Your task to perform on an android device: What's the weather today? Image 0: 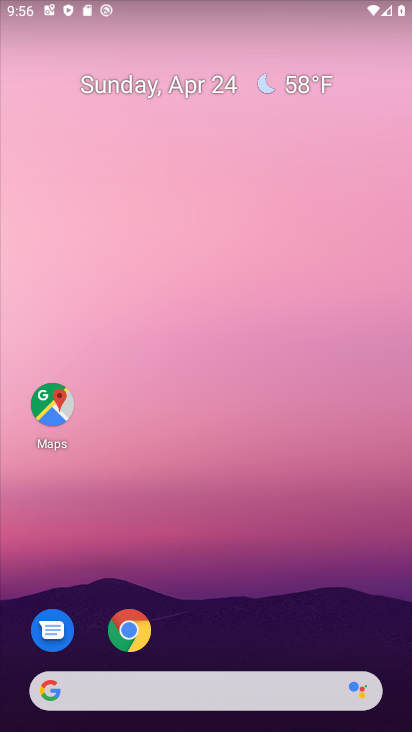
Step 0: drag from (195, 658) to (176, 18)
Your task to perform on an android device: What's the weather today? Image 1: 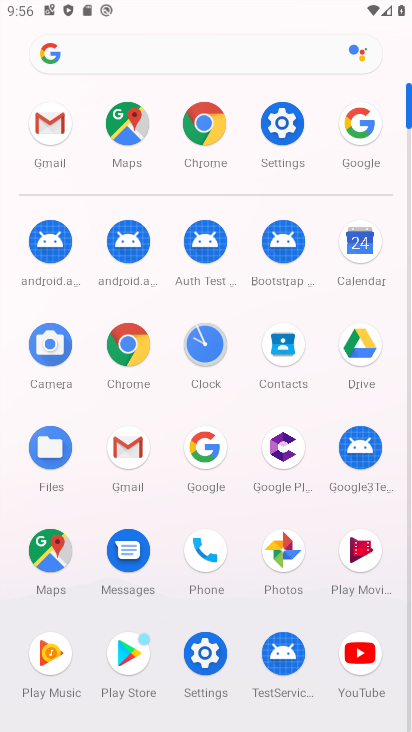
Step 1: click (208, 469)
Your task to perform on an android device: What's the weather today? Image 2: 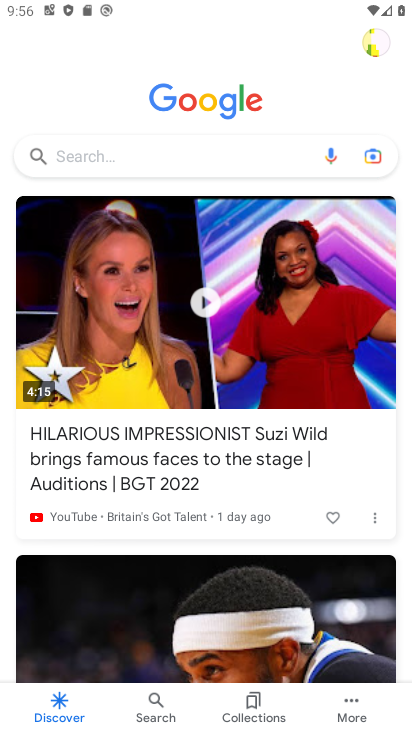
Step 2: click (241, 160)
Your task to perform on an android device: What's the weather today? Image 3: 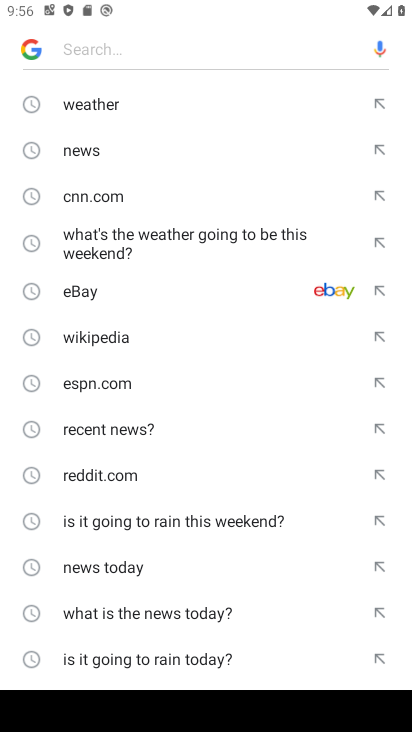
Step 3: click (217, 96)
Your task to perform on an android device: What's the weather today? Image 4: 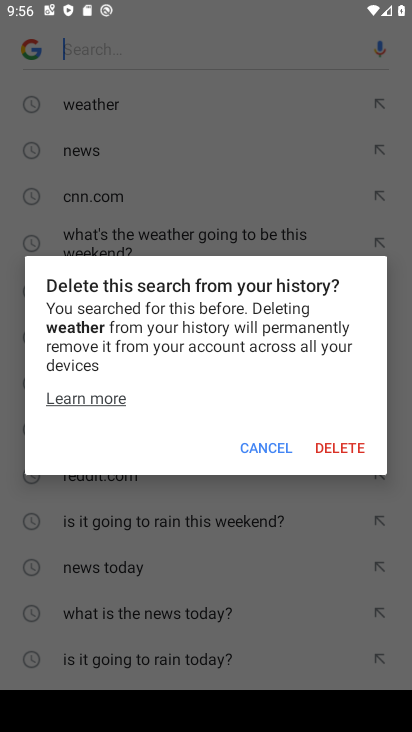
Step 4: click (262, 449)
Your task to perform on an android device: What's the weather today? Image 5: 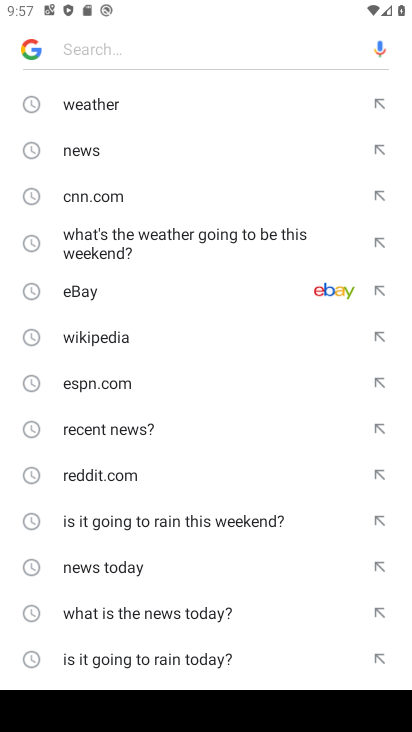
Step 5: type "weahther"
Your task to perform on an android device: What's the weather today? Image 6: 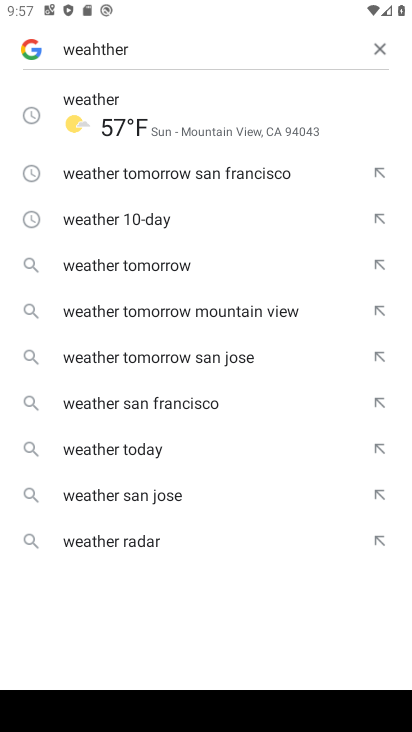
Step 6: click (206, 123)
Your task to perform on an android device: What's the weather today? Image 7: 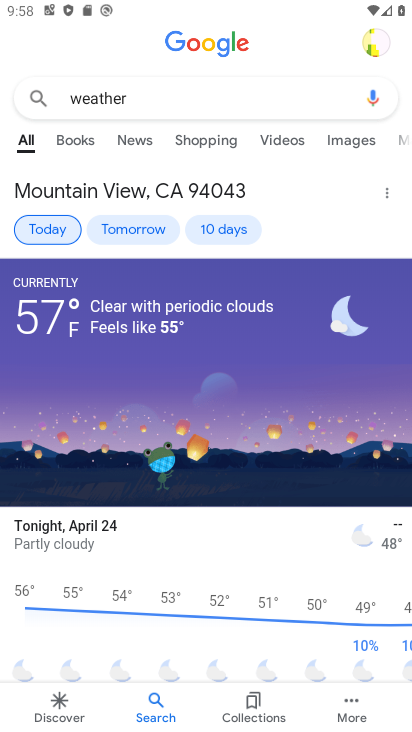
Step 7: task complete